Your task to perform on an android device: turn off priority inbox in the gmail app Image 0: 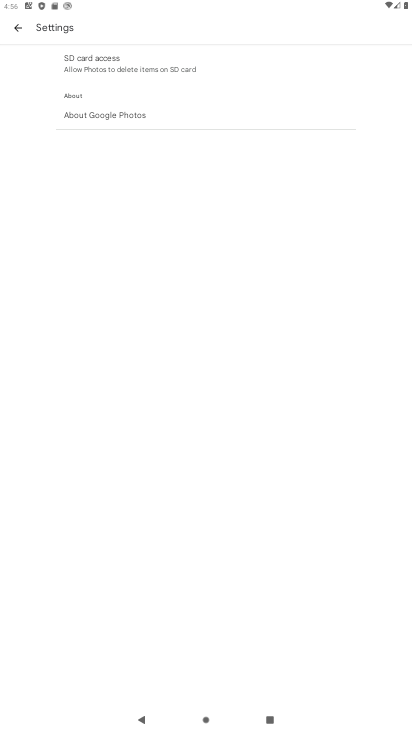
Step 0: press home button
Your task to perform on an android device: turn off priority inbox in the gmail app Image 1: 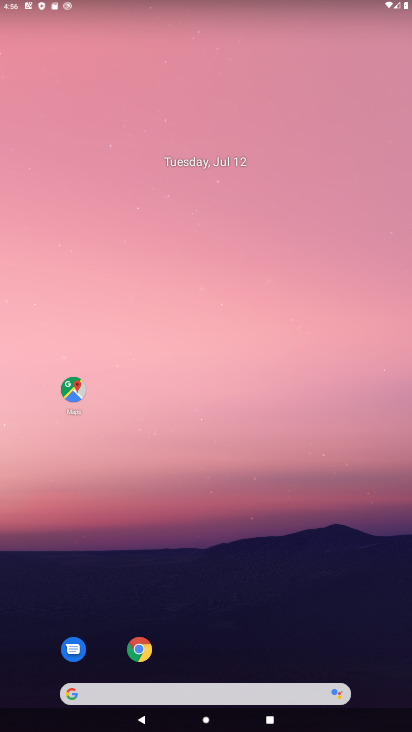
Step 1: drag from (220, 695) to (246, 176)
Your task to perform on an android device: turn off priority inbox in the gmail app Image 2: 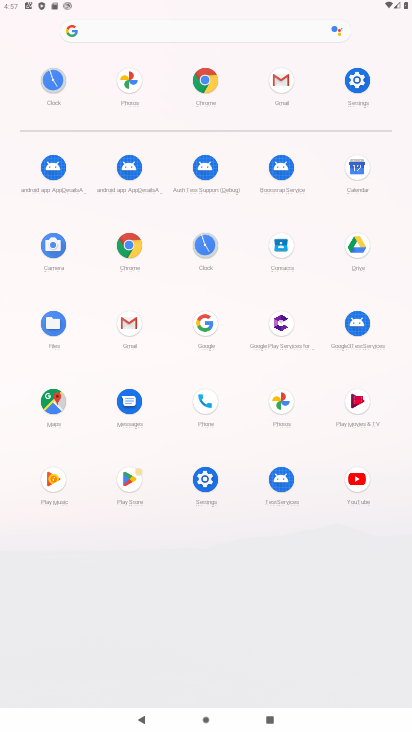
Step 2: click (280, 79)
Your task to perform on an android device: turn off priority inbox in the gmail app Image 3: 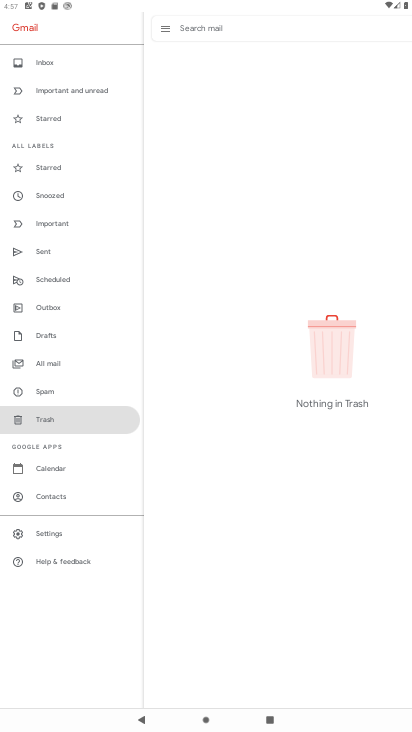
Step 3: click (41, 534)
Your task to perform on an android device: turn off priority inbox in the gmail app Image 4: 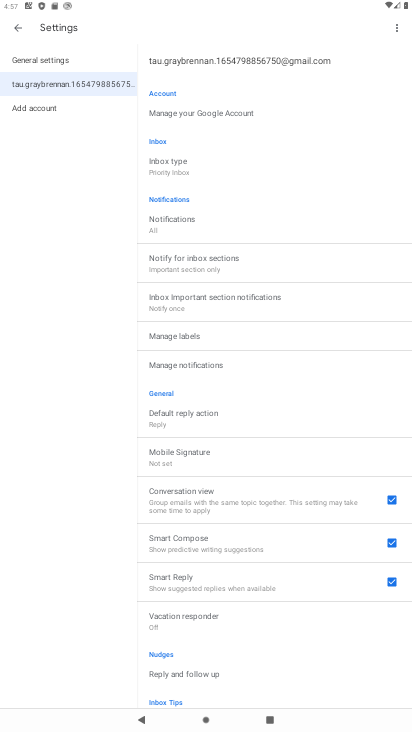
Step 4: click (169, 168)
Your task to perform on an android device: turn off priority inbox in the gmail app Image 5: 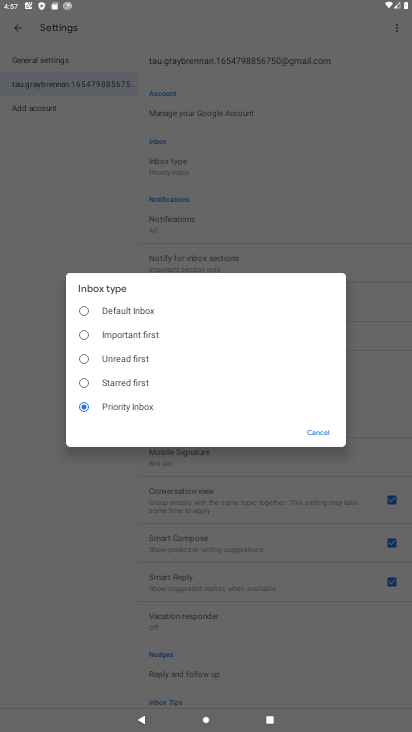
Step 5: click (81, 385)
Your task to perform on an android device: turn off priority inbox in the gmail app Image 6: 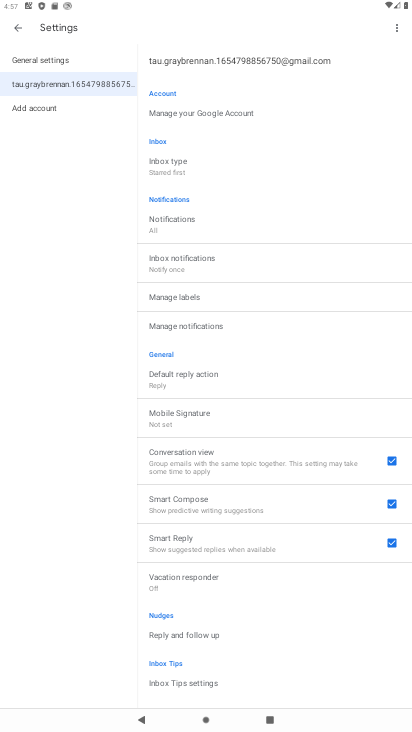
Step 6: task complete